Your task to perform on an android device: Search for vegetarian restaurants on Maps Image 0: 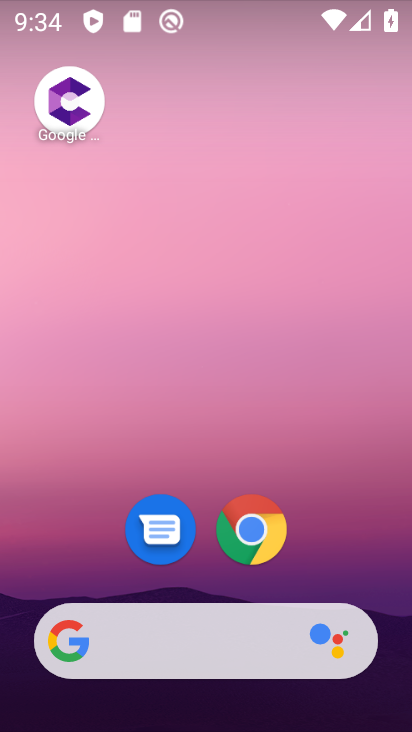
Step 0: drag from (382, 565) to (319, 6)
Your task to perform on an android device: Search for vegetarian restaurants on Maps Image 1: 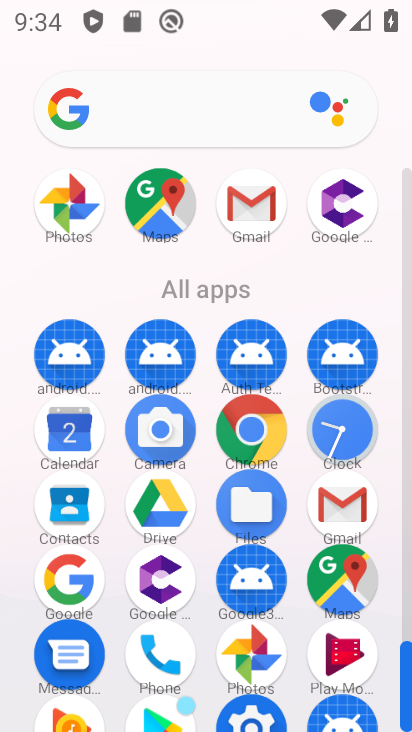
Step 1: click (343, 578)
Your task to perform on an android device: Search for vegetarian restaurants on Maps Image 2: 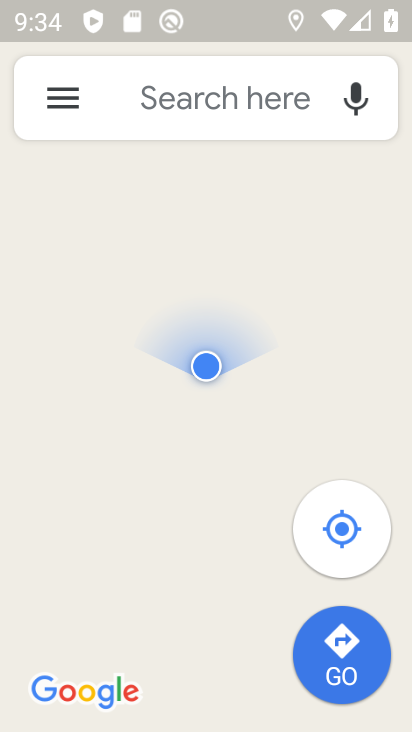
Step 2: click (203, 95)
Your task to perform on an android device: Search for vegetarian restaurants on Maps Image 3: 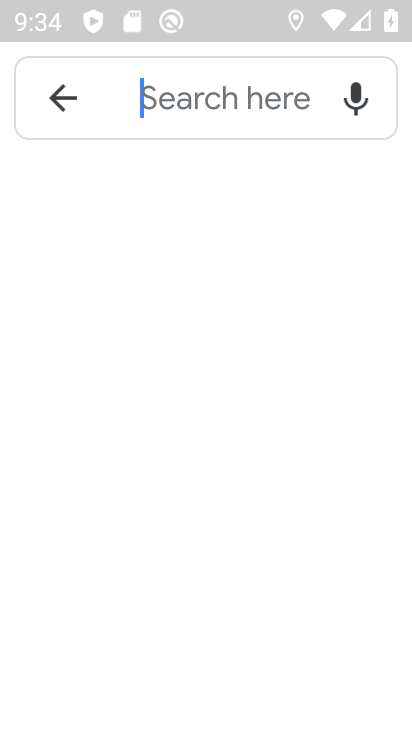
Step 3: click (203, 95)
Your task to perform on an android device: Search for vegetarian restaurants on Maps Image 4: 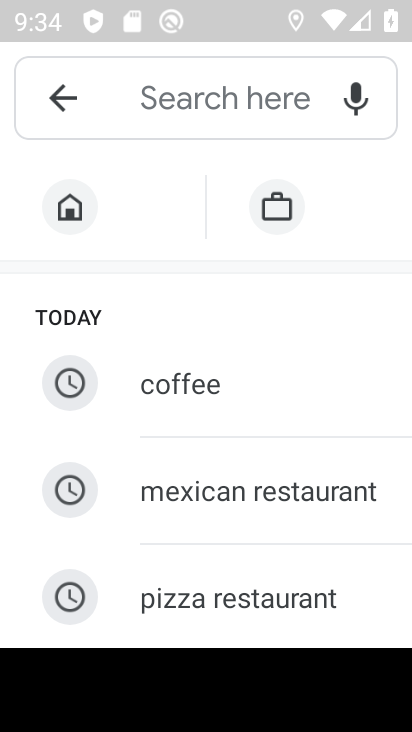
Step 4: type "vegetarian restaurants"
Your task to perform on an android device: Search for vegetarian restaurants on Maps Image 5: 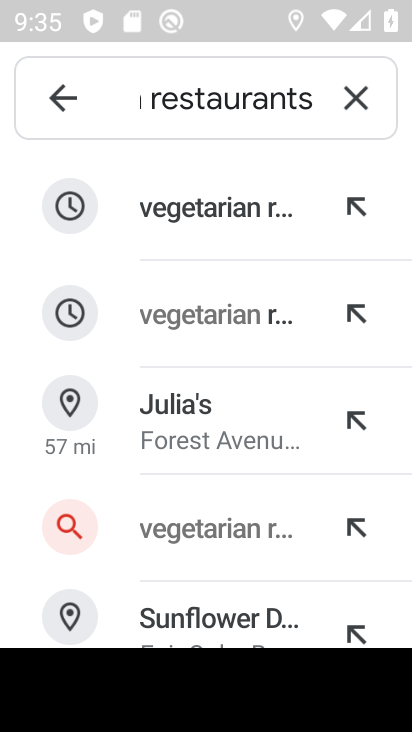
Step 5: click (184, 225)
Your task to perform on an android device: Search for vegetarian restaurants on Maps Image 6: 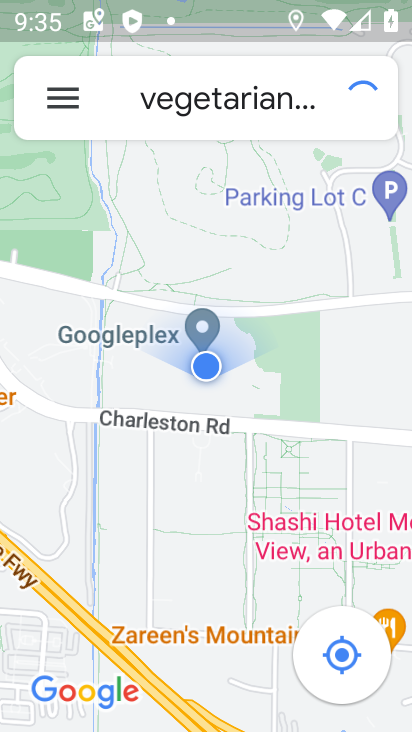
Step 6: task complete